Your task to perform on an android device: What's the weather? Image 0: 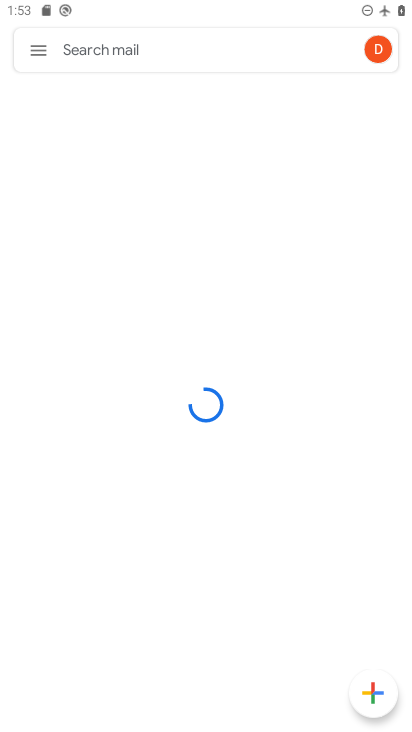
Step 0: press home button
Your task to perform on an android device: What's the weather? Image 1: 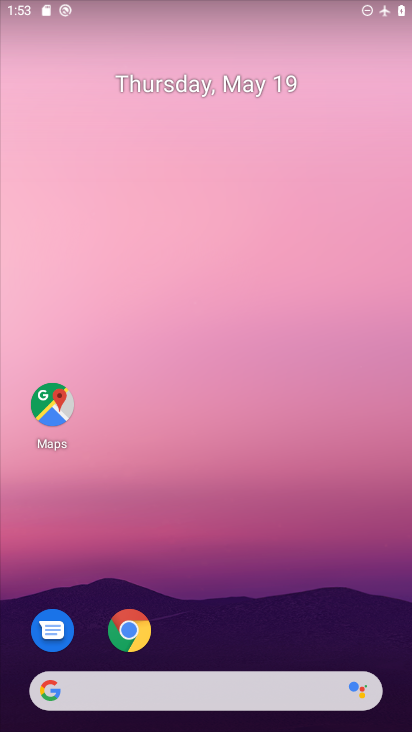
Step 1: click (194, 673)
Your task to perform on an android device: What's the weather? Image 2: 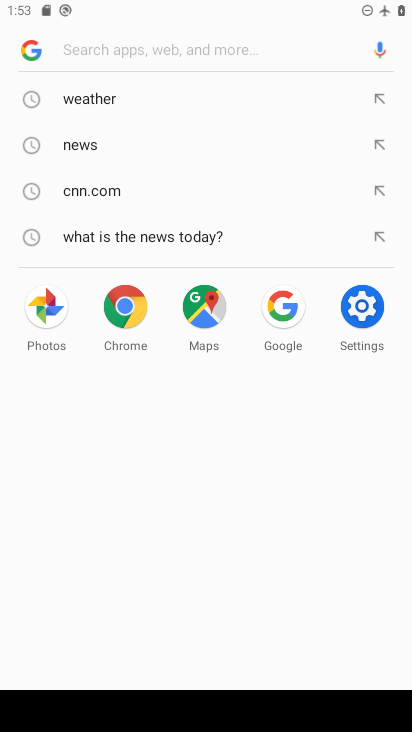
Step 2: click (84, 92)
Your task to perform on an android device: What's the weather? Image 3: 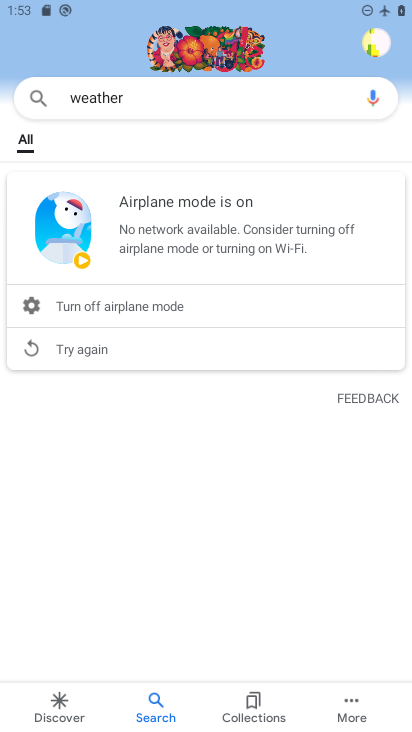
Step 3: task complete